Your task to perform on an android device: Where can I buy a nice beach chair? Image 0: 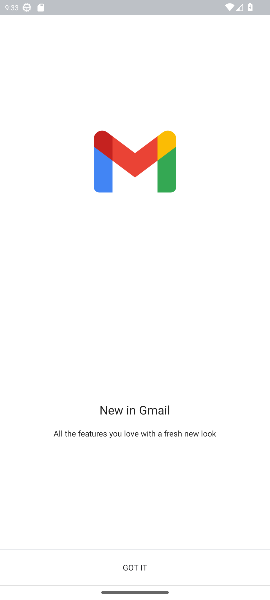
Step 0: press home button
Your task to perform on an android device: Where can I buy a nice beach chair? Image 1: 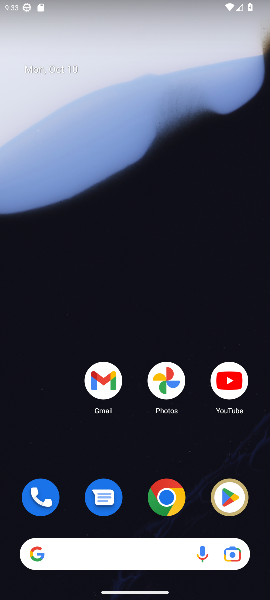
Step 1: drag from (129, 393) to (131, 159)
Your task to perform on an android device: Where can I buy a nice beach chair? Image 2: 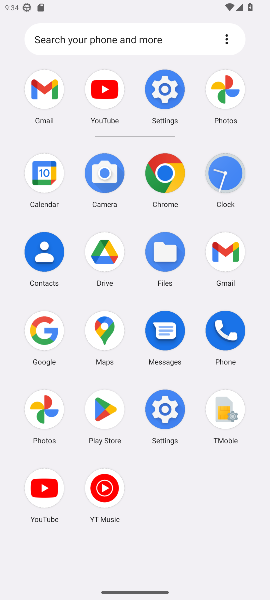
Step 2: click (41, 335)
Your task to perform on an android device: Where can I buy a nice beach chair? Image 3: 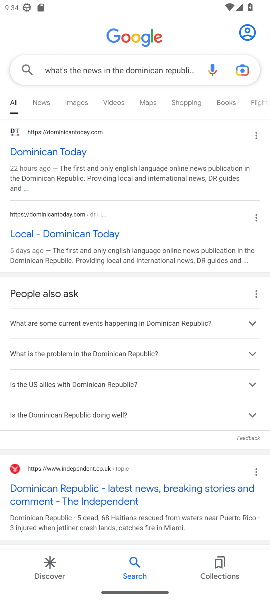
Step 3: click (100, 70)
Your task to perform on an android device: Where can I buy a nice beach chair? Image 4: 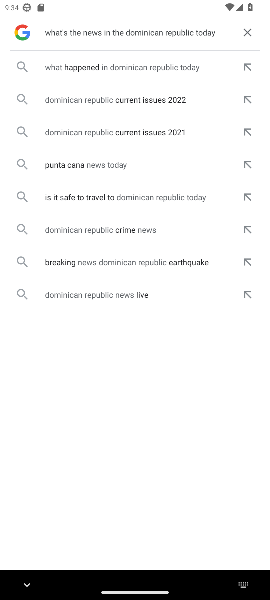
Step 4: click (249, 30)
Your task to perform on an android device: Where can I buy a nice beach chair? Image 5: 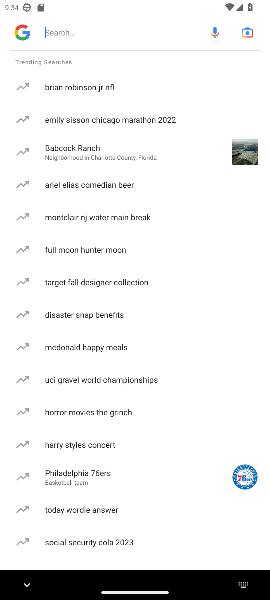
Step 5: click (99, 24)
Your task to perform on an android device: Where can I buy a nice beach chair? Image 6: 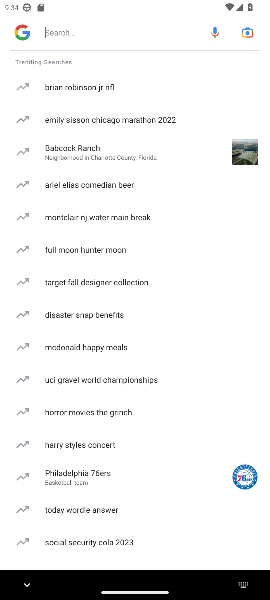
Step 6: type "Where can I buy a nice beach chair? "
Your task to perform on an android device: Where can I buy a nice beach chair? Image 7: 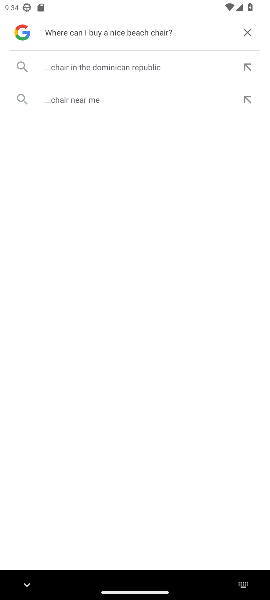
Step 7: click (81, 72)
Your task to perform on an android device: Where can I buy a nice beach chair? Image 8: 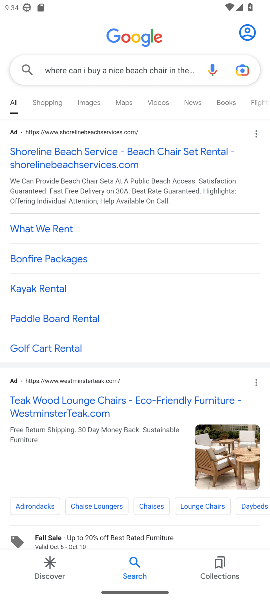
Step 8: click (99, 141)
Your task to perform on an android device: Where can I buy a nice beach chair? Image 9: 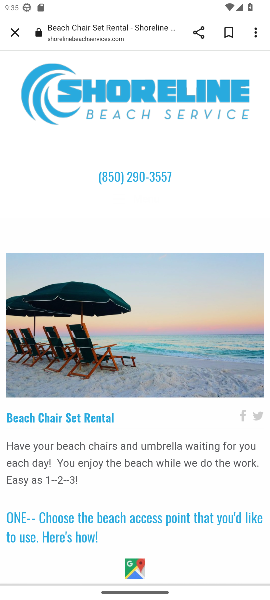
Step 9: task complete